Your task to perform on an android device: toggle improve location accuracy Image 0: 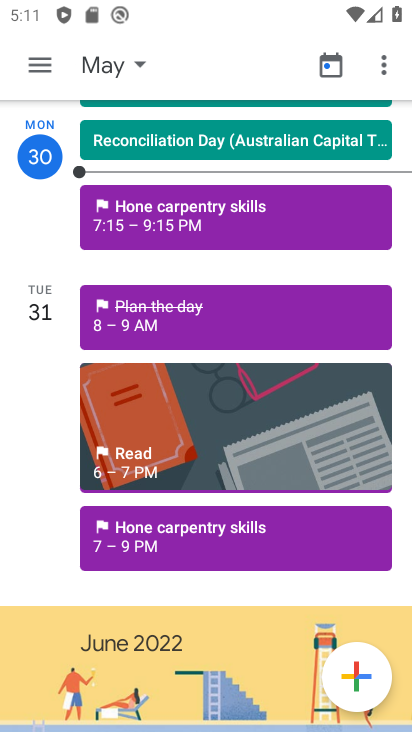
Step 0: press home button
Your task to perform on an android device: toggle improve location accuracy Image 1: 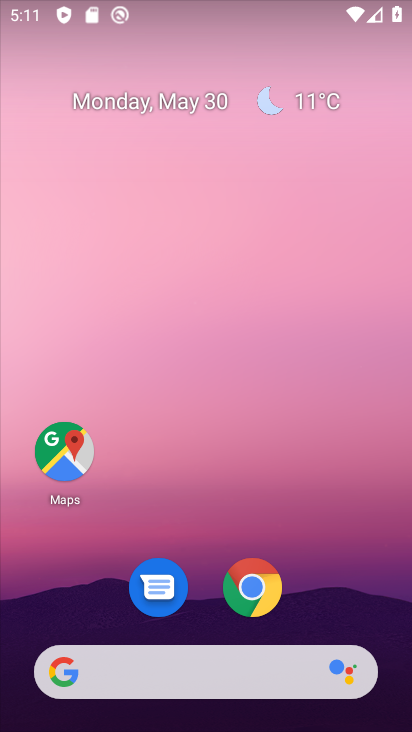
Step 1: drag from (344, 590) to (247, 0)
Your task to perform on an android device: toggle improve location accuracy Image 2: 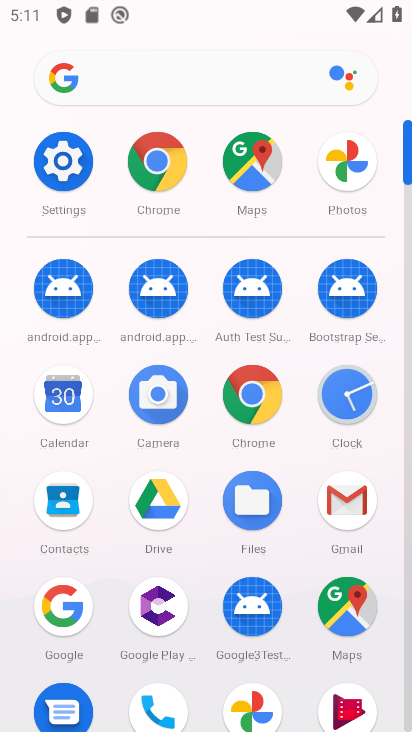
Step 2: drag from (36, 516) to (41, 287)
Your task to perform on an android device: toggle improve location accuracy Image 3: 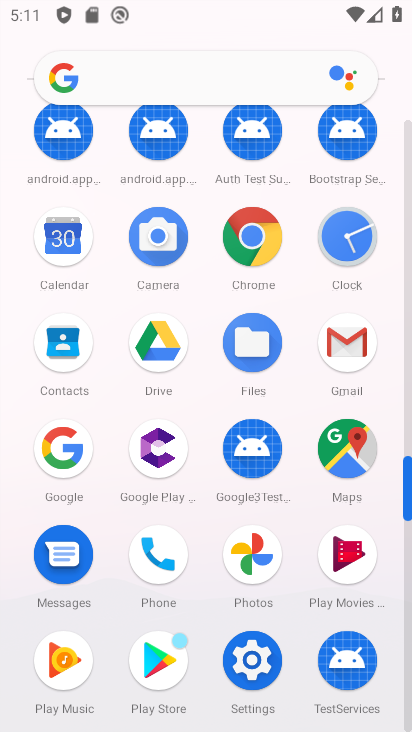
Step 3: click (251, 659)
Your task to perform on an android device: toggle improve location accuracy Image 4: 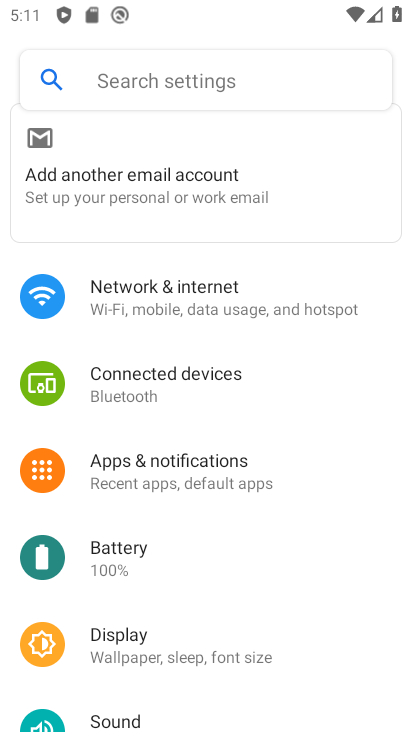
Step 4: drag from (227, 606) to (283, 285)
Your task to perform on an android device: toggle improve location accuracy Image 5: 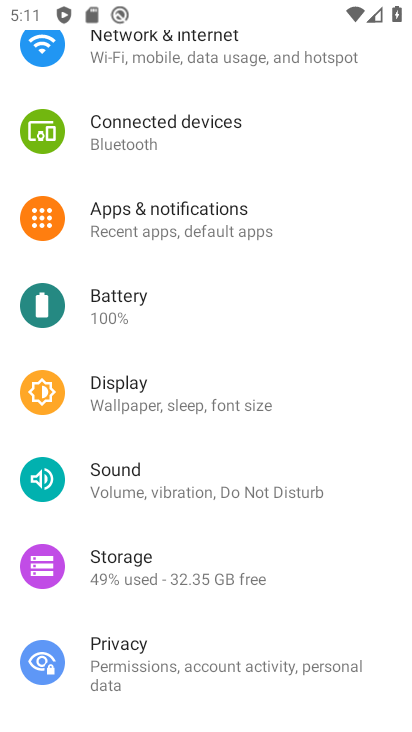
Step 5: drag from (244, 580) to (268, 200)
Your task to perform on an android device: toggle improve location accuracy Image 6: 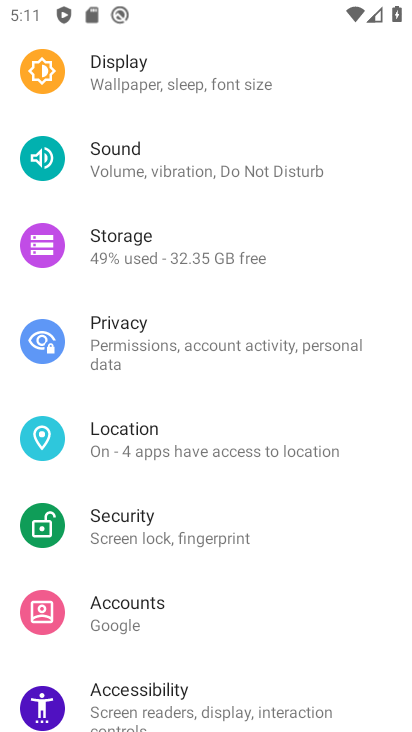
Step 6: click (174, 427)
Your task to perform on an android device: toggle improve location accuracy Image 7: 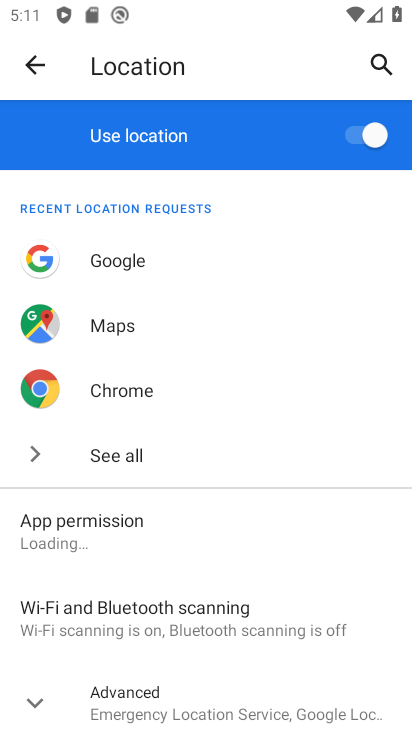
Step 7: click (106, 676)
Your task to perform on an android device: toggle improve location accuracy Image 8: 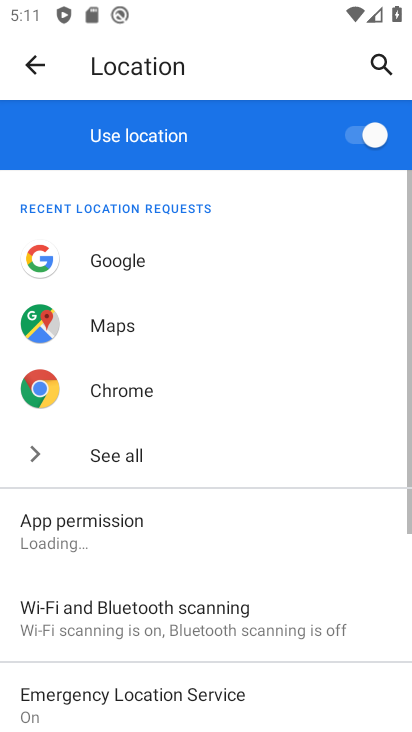
Step 8: drag from (268, 636) to (297, 251)
Your task to perform on an android device: toggle improve location accuracy Image 9: 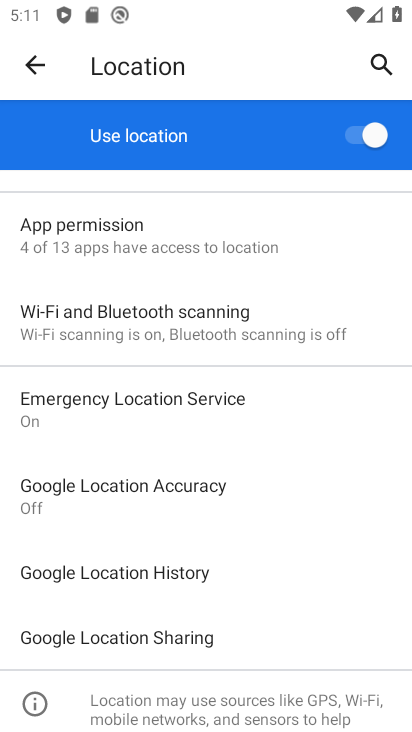
Step 9: click (205, 486)
Your task to perform on an android device: toggle improve location accuracy Image 10: 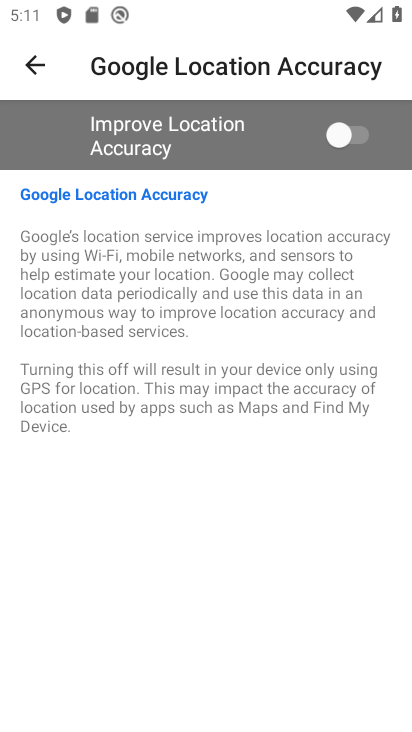
Step 10: click (331, 121)
Your task to perform on an android device: toggle improve location accuracy Image 11: 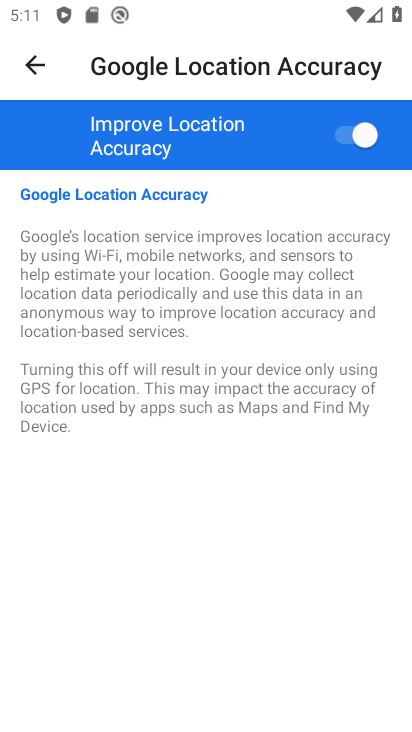
Step 11: task complete